Your task to perform on an android device: Look up the best rated 3d printer on Ali Express Image 0: 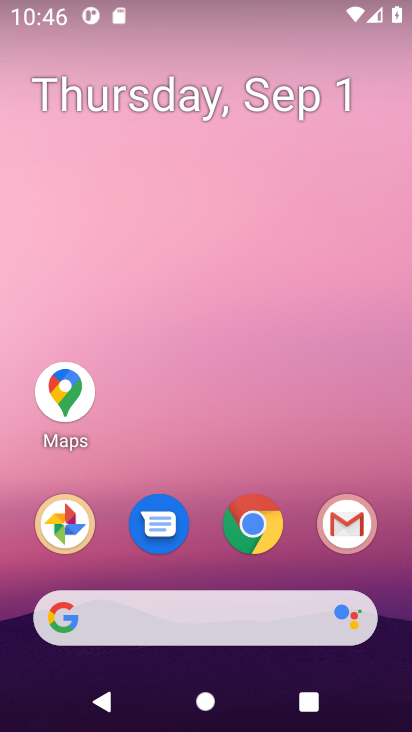
Step 0: drag from (399, 573) to (373, 78)
Your task to perform on an android device: Look up the best rated 3d printer on Ali Express Image 1: 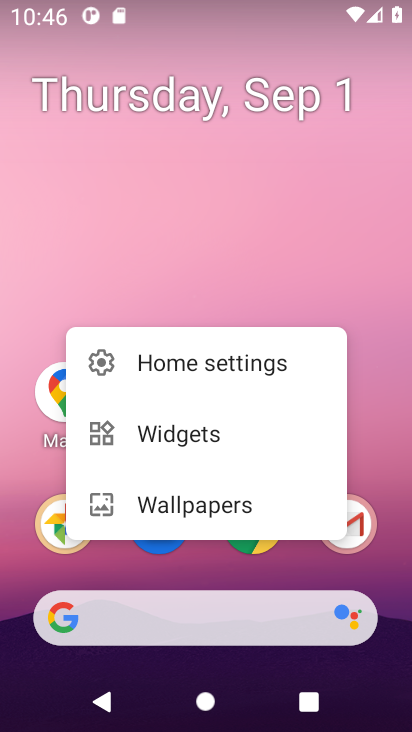
Step 1: click (375, 397)
Your task to perform on an android device: Look up the best rated 3d printer on Ali Express Image 2: 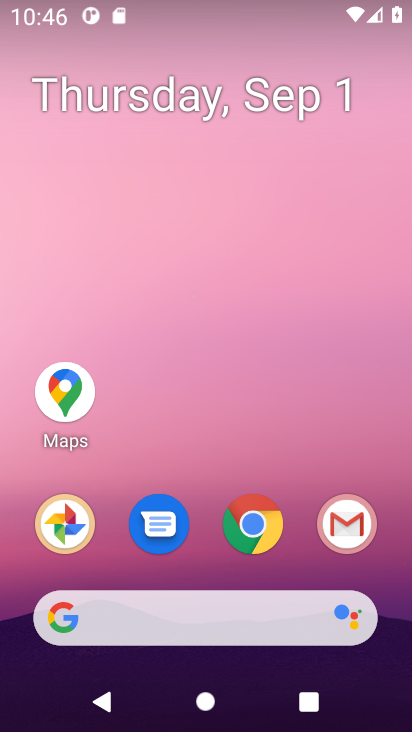
Step 2: drag from (388, 553) to (389, 84)
Your task to perform on an android device: Look up the best rated 3d printer on Ali Express Image 3: 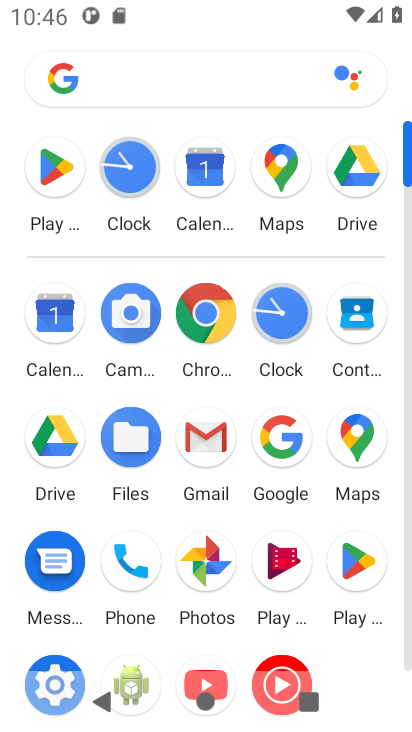
Step 3: click (202, 307)
Your task to perform on an android device: Look up the best rated 3d printer on Ali Express Image 4: 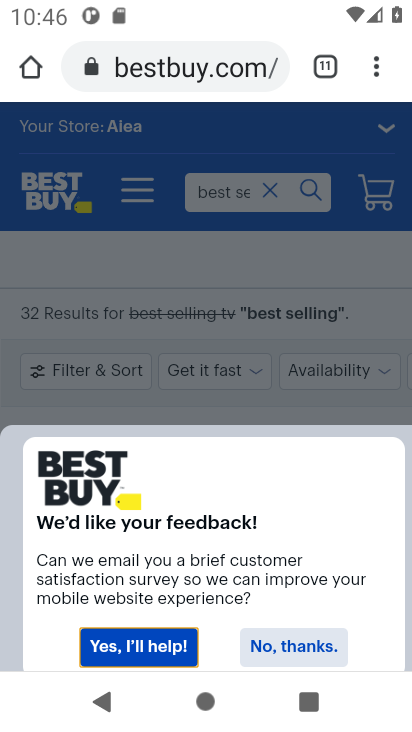
Step 4: click (202, 307)
Your task to perform on an android device: Look up the best rated 3d printer on Ali Express Image 5: 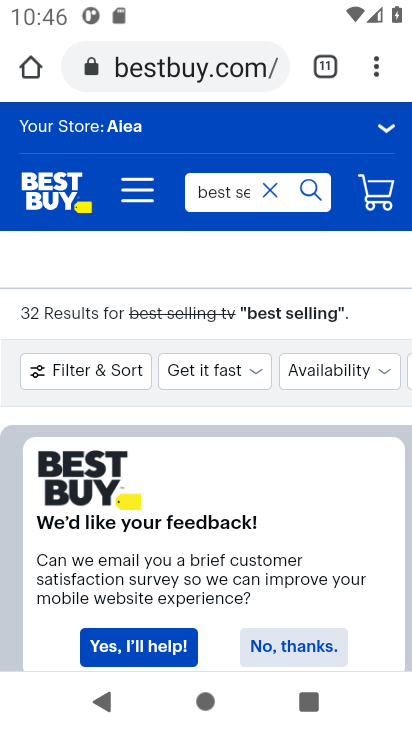
Step 5: click (201, 70)
Your task to perform on an android device: Look up the best rated 3d printer on Ali Express Image 6: 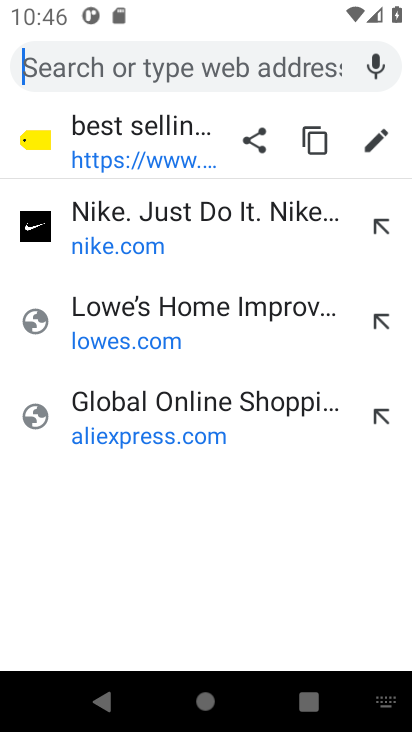
Step 6: type "aliexpress"
Your task to perform on an android device: Look up the best rated 3d printer on Ali Express Image 7: 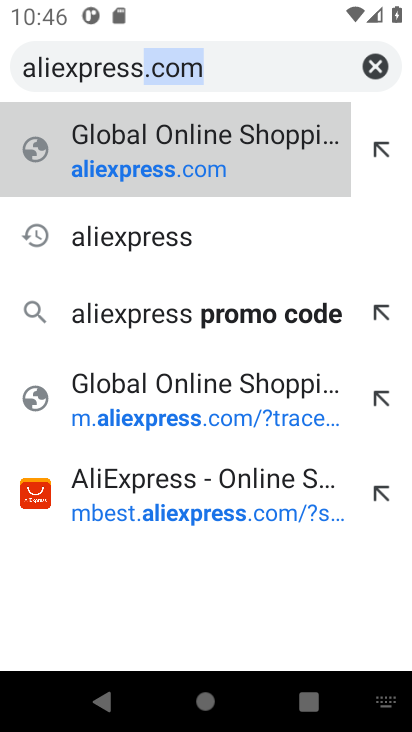
Step 7: press enter
Your task to perform on an android device: Look up the best rated 3d printer on Ali Express Image 8: 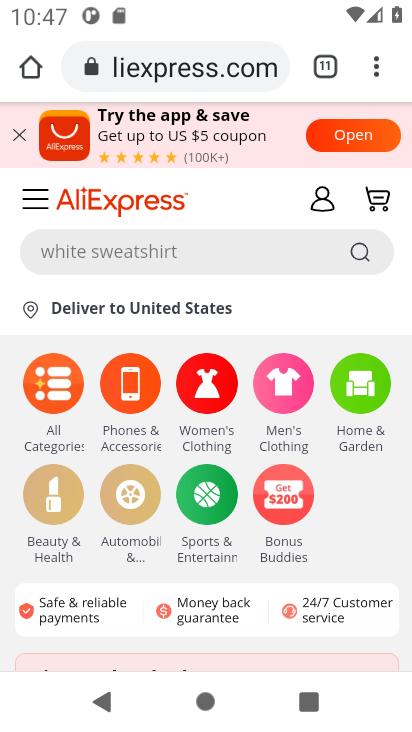
Step 8: click (198, 245)
Your task to perform on an android device: Look up the best rated 3d printer on Ali Express Image 9: 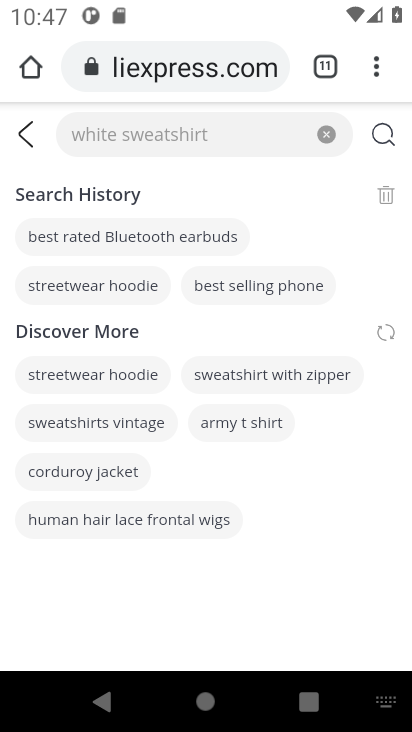
Step 9: type "best rated 3d printer"
Your task to perform on an android device: Look up the best rated 3d printer on Ali Express Image 10: 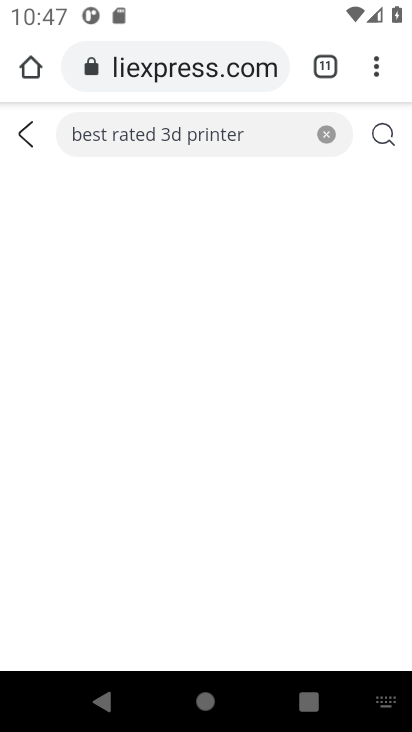
Step 10: press enter
Your task to perform on an android device: Look up the best rated 3d printer on Ali Express Image 11: 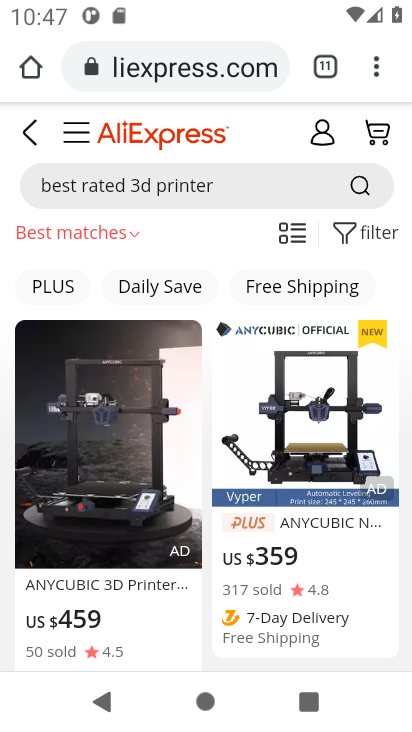
Step 11: task complete